Your task to perform on an android device: open app "Adobe Acrobat Reader" (install if not already installed), go to login, and select forgot password Image 0: 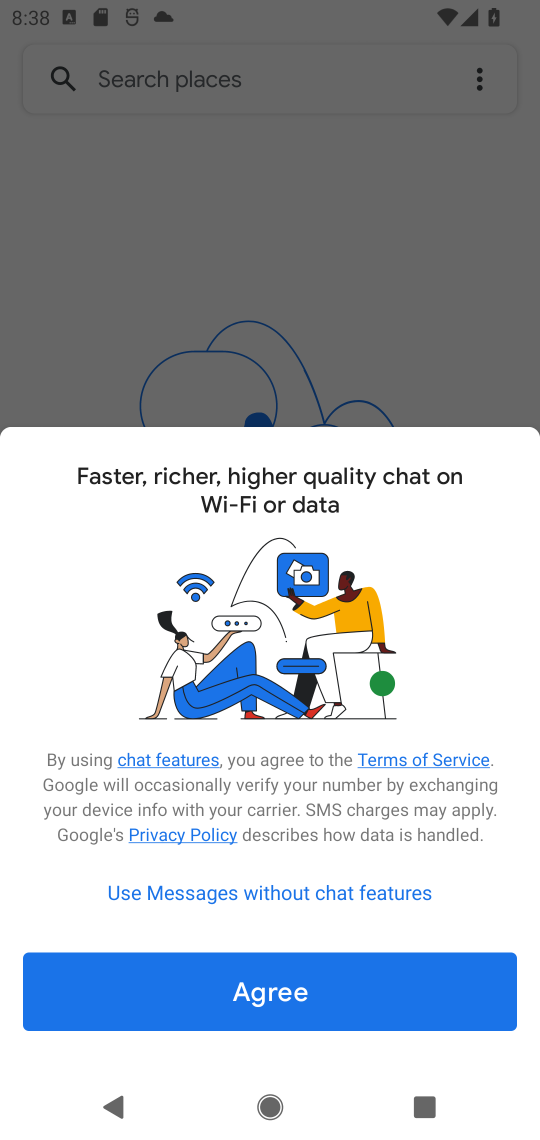
Step 0: press home button
Your task to perform on an android device: open app "Adobe Acrobat Reader" (install if not already installed), go to login, and select forgot password Image 1: 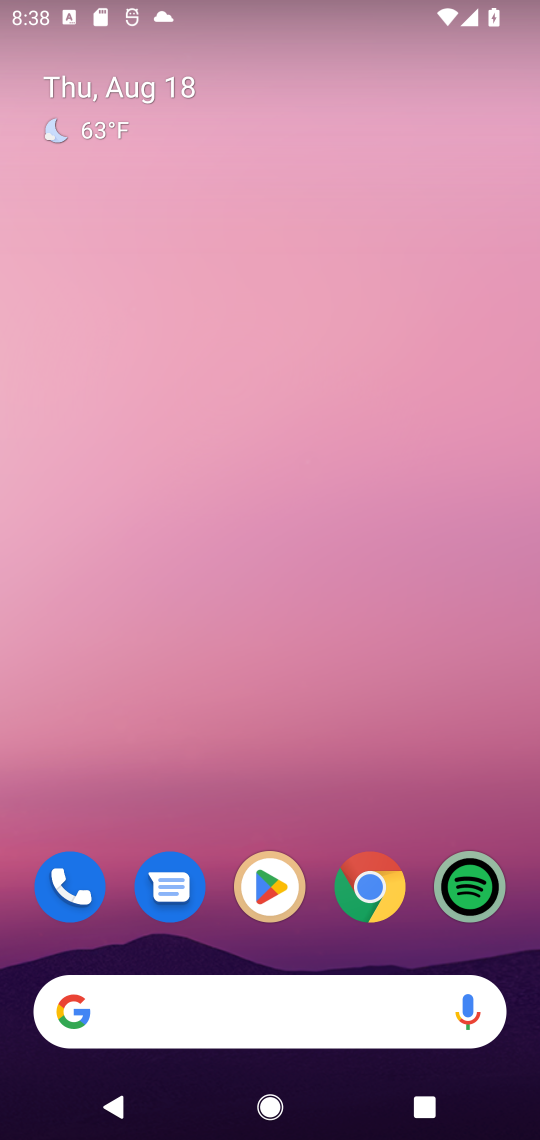
Step 1: drag from (254, 970) to (249, 51)
Your task to perform on an android device: open app "Adobe Acrobat Reader" (install if not already installed), go to login, and select forgot password Image 2: 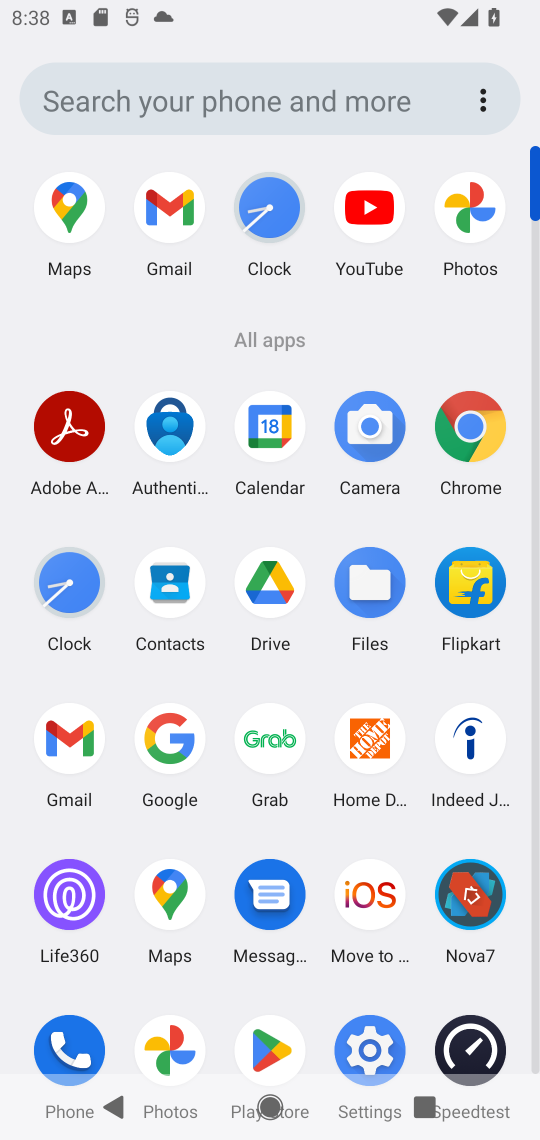
Step 2: click (261, 1048)
Your task to perform on an android device: open app "Adobe Acrobat Reader" (install if not already installed), go to login, and select forgot password Image 3: 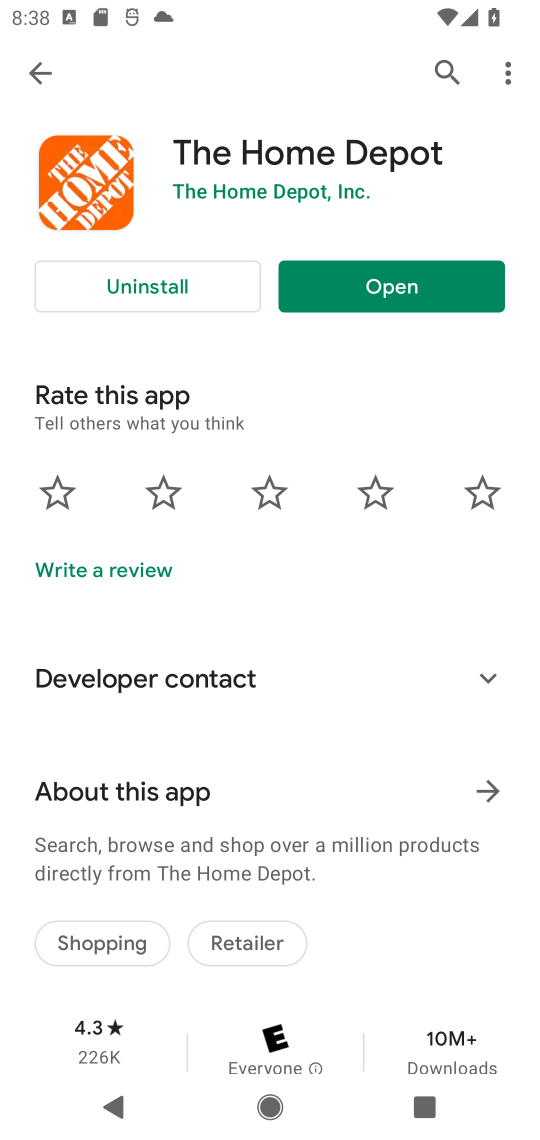
Step 3: click (448, 65)
Your task to perform on an android device: open app "Adobe Acrobat Reader" (install if not already installed), go to login, and select forgot password Image 4: 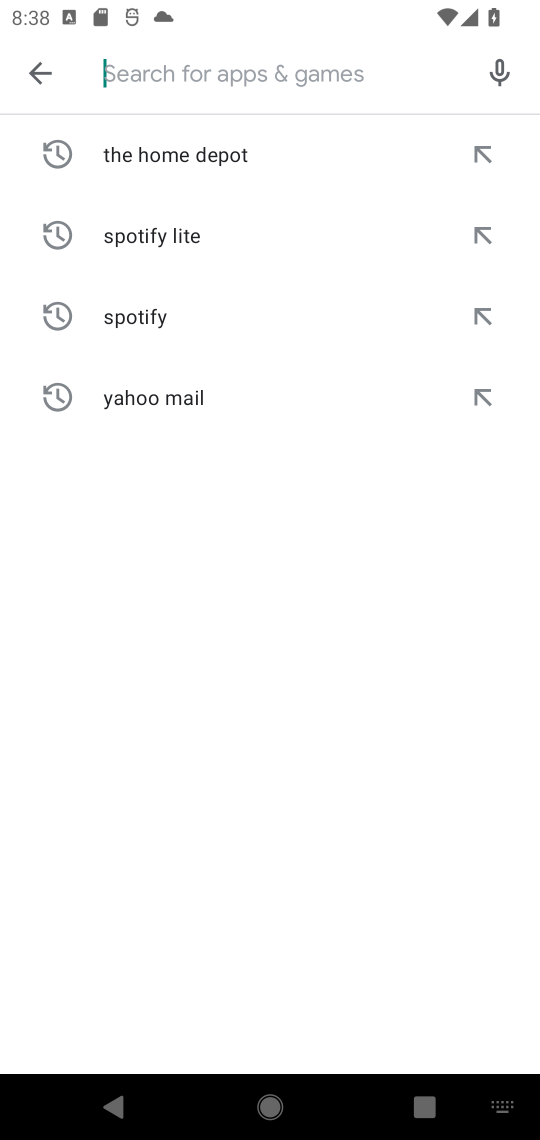
Step 4: type "Adobe Acrobat Reader"
Your task to perform on an android device: open app "Adobe Acrobat Reader" (install if not already installed), go to login, and select forgot password Image 5: 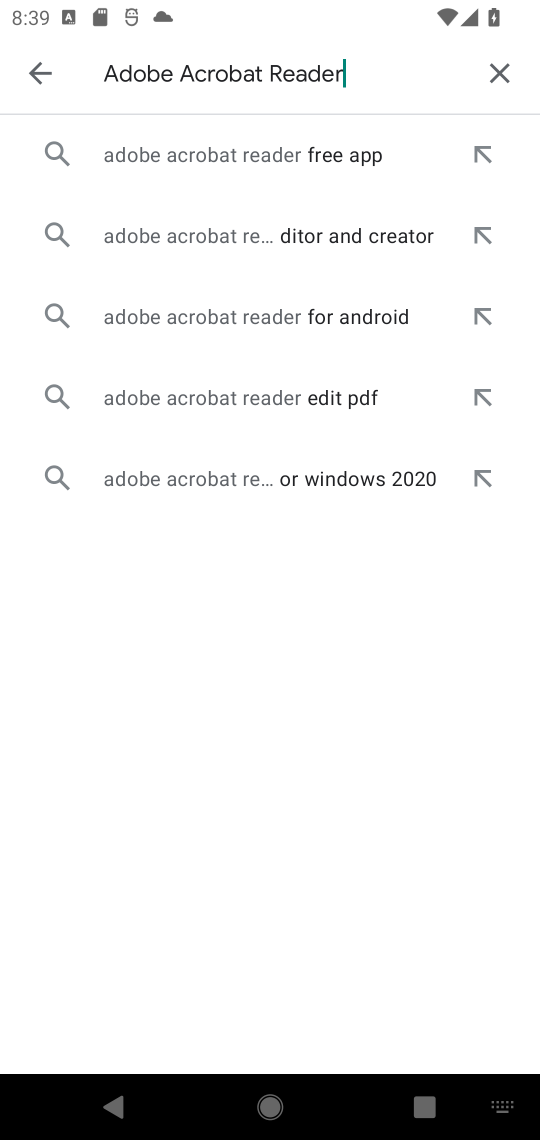
Step 5: click (211, 154)
Your task to perform on an android device: open app "Adobe Acrobat Reader" (install if not already installed), go to login, and select forgot password Image 6: 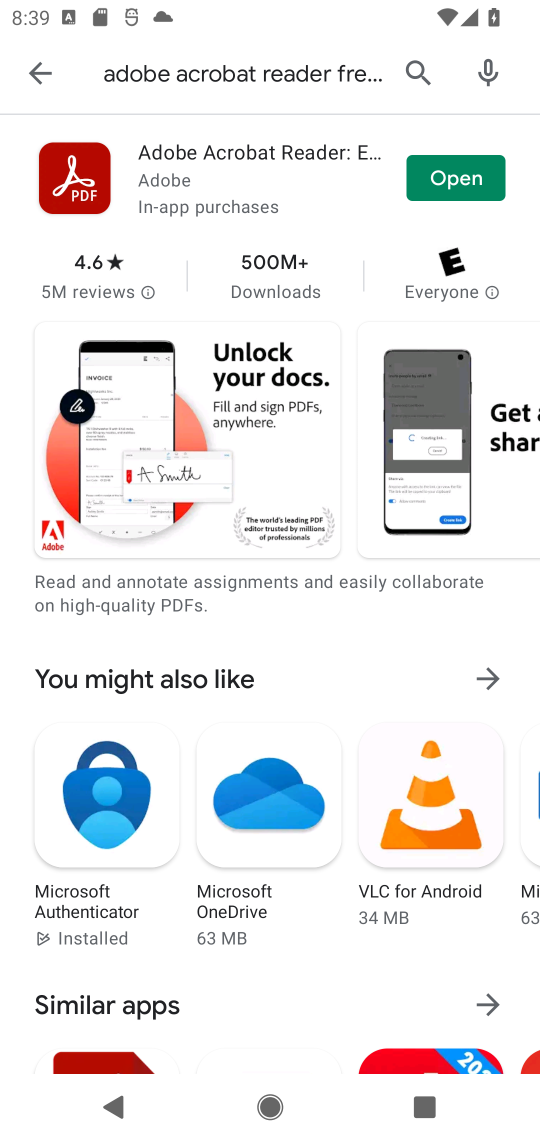
Step 6: click (193, 157)
Your task to perform on an android device: open app "Adobe Acrobat Reader" (install if not already installed), go to login, and select forgot password Image 7: 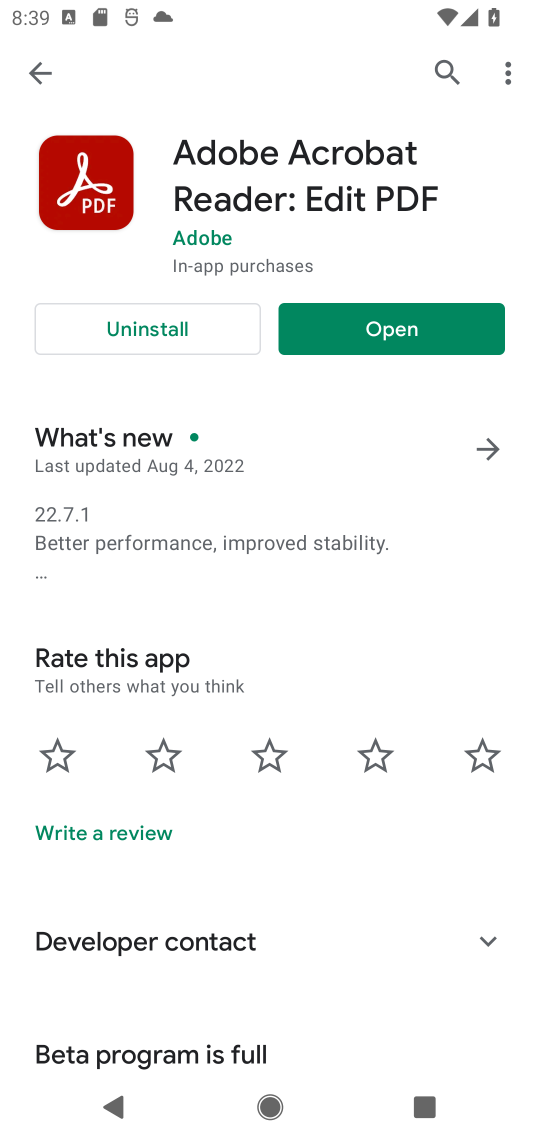
Step 7: click (394, 325)
Your task to perform on an android device: open app "Adobe Acrobat Reader" (install if not already installed), go to login, and select forgot password Image 8: 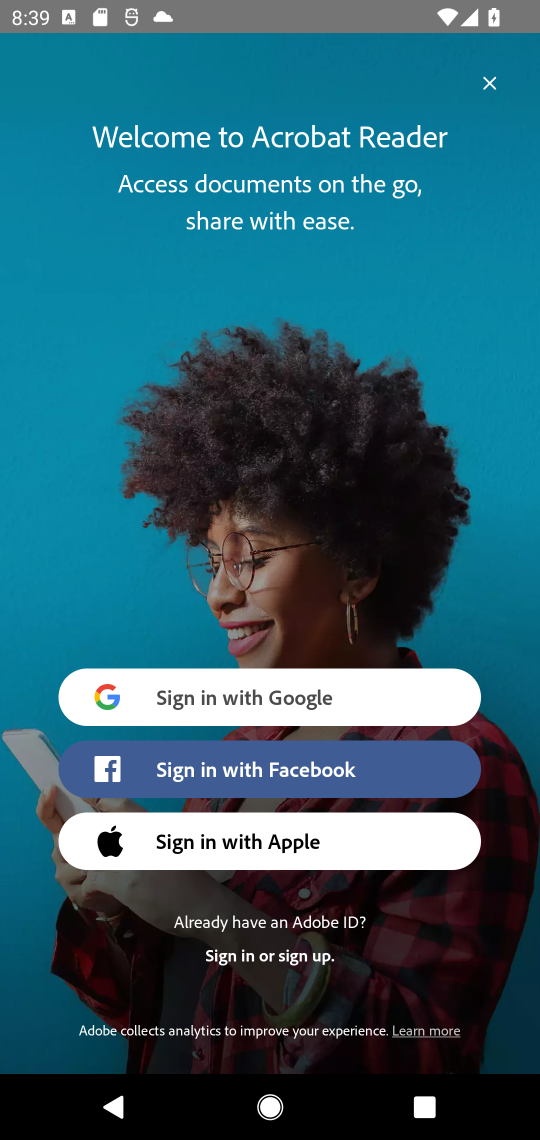
Step 8: task complete